Your task to perform on an android device: Go to Google maps Image 0: 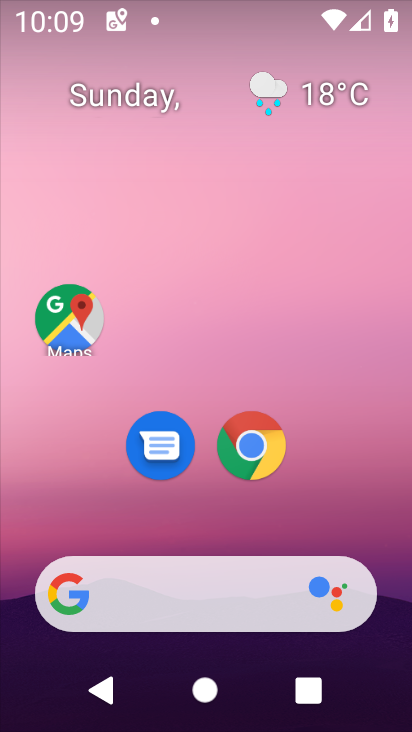
Step 0: click (71, 309)
Your task to perform on an android device: Go to Google maps Image 1: 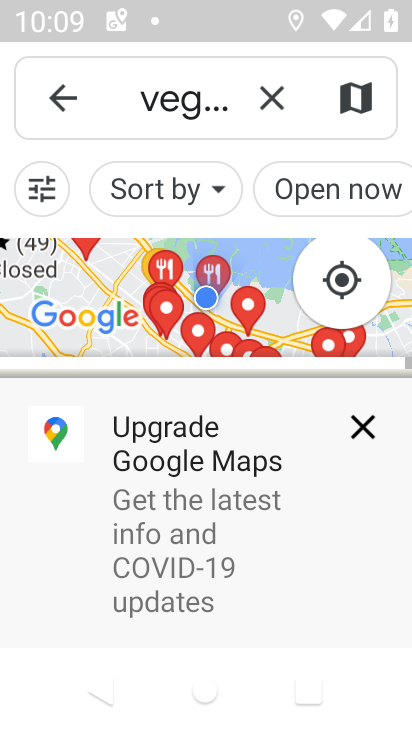
Step 1: click (367, 426)
Your task to perform on an android device: Go to Google maps Image 2: 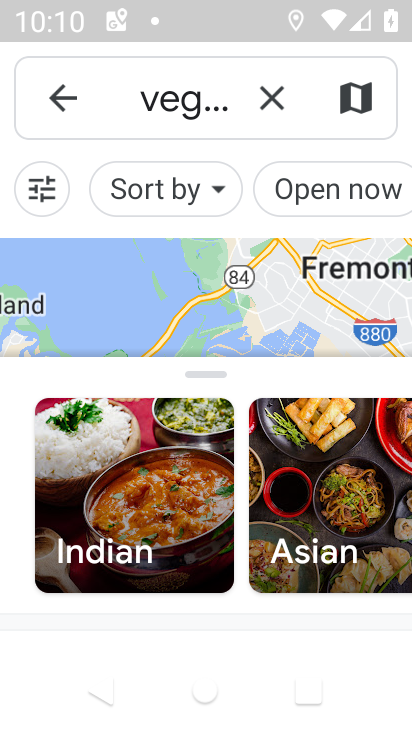
Step 2: click (277, 94)
Your task to perform on an android device: Go to Google maps Image 3: 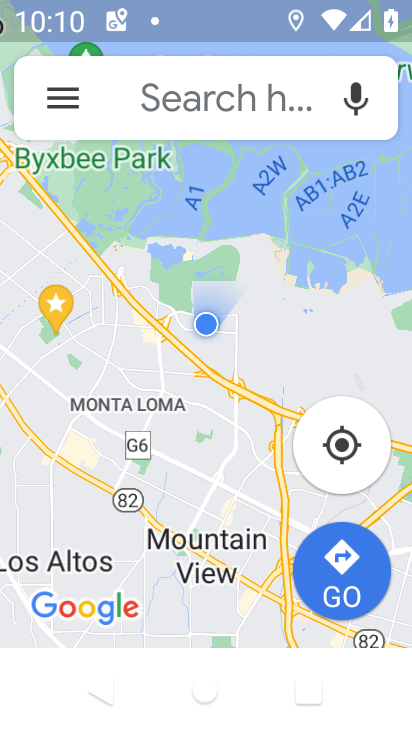
Step 3: task complete